Your task to perform on an android device: Open Yahoo.com Image 0: 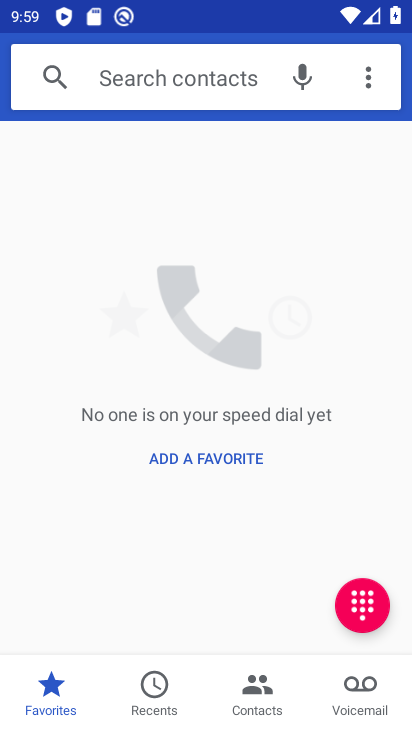
Step 0: press home button
Your task to perform on an android device: Open Yahoo.com Image 1: 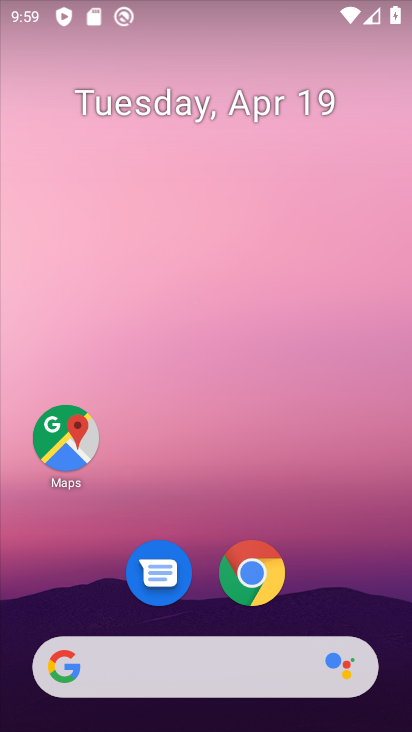
Step 1: click (249, 576)
Your task to perform on an android device: Open Yahoo.com Image 2: 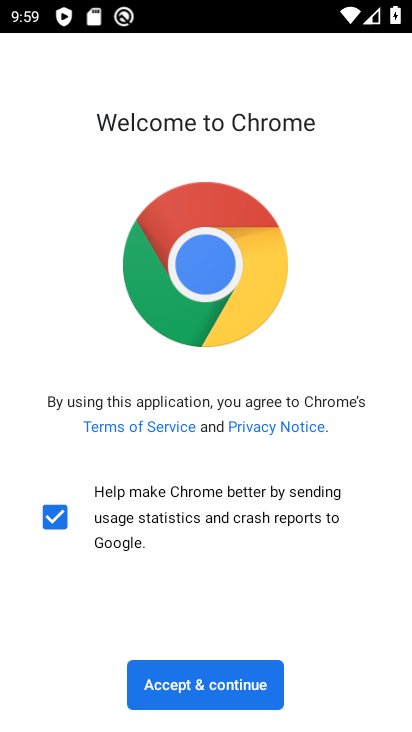
Step 2: click (221, 685)
Your task to perform on an android device: Open Yahoo.com Image 3: 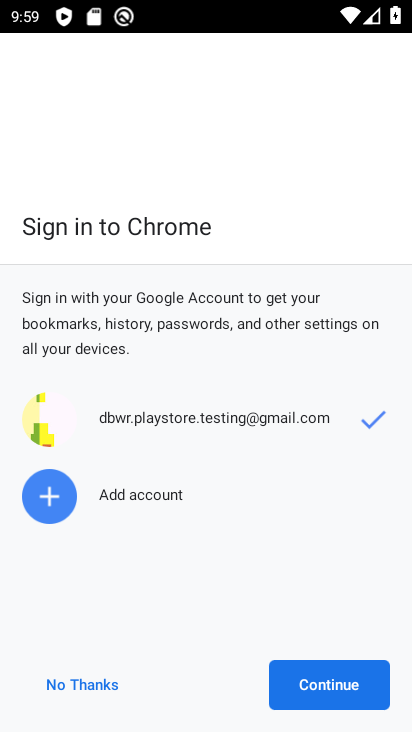
Step 3: click (353, 681)
Your task to perform on an android device: Open Yahoo.com Image 4: 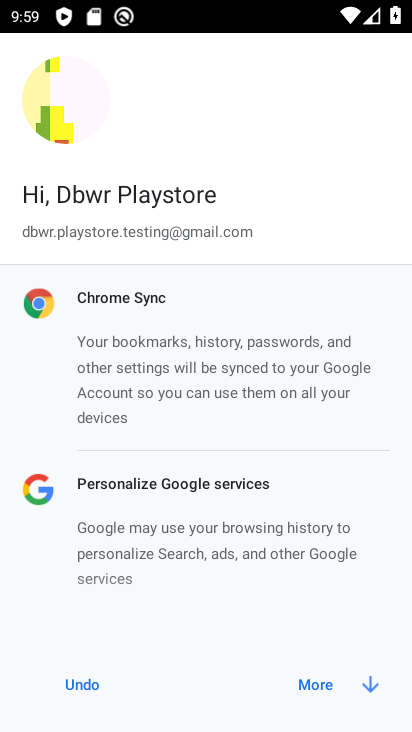
Step 4: click (322, 679)
Your task to perform on an android device: Open Yahoo.com Image 5: 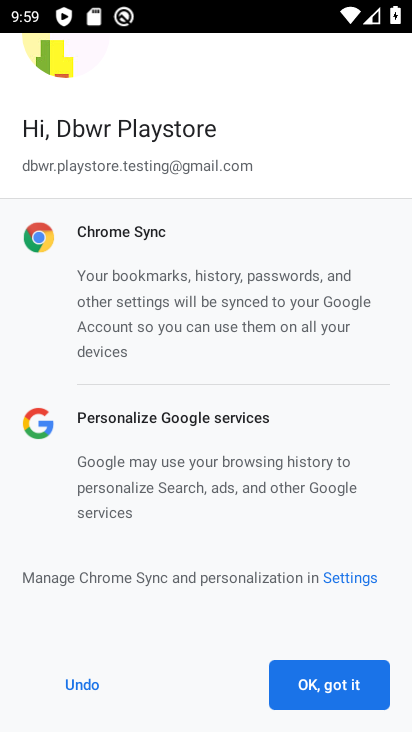
Step 5: click (322, 679)
Your task to perform on an android device: Open Yahoo.com Image 6: 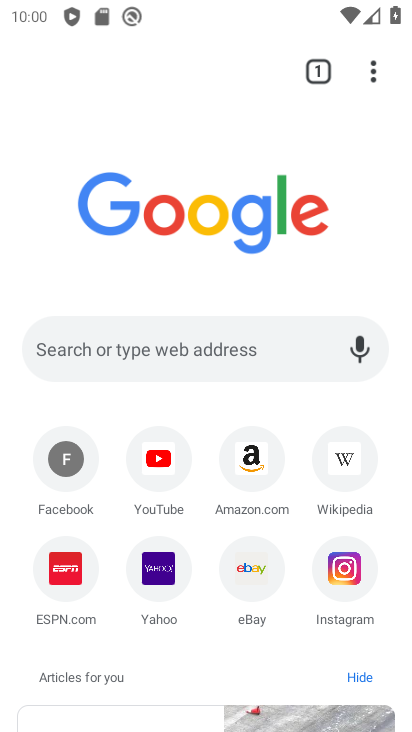
Step 6: click (156, 574)
Your task to perform on an android device: Open Yahoo.com Image 7: 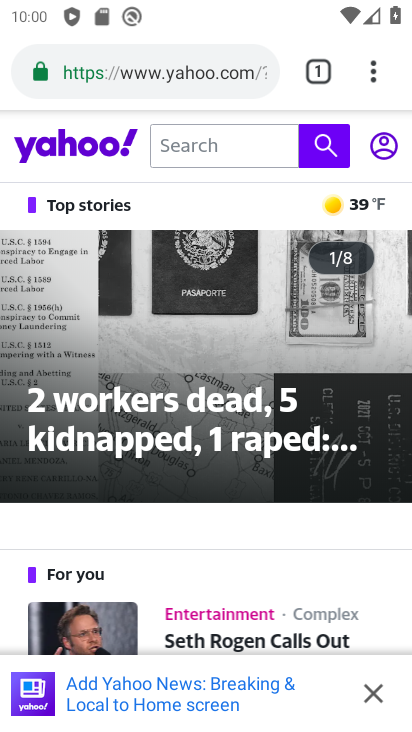
Step 7: task complete